Your task to perform on an android device: uninstall "Venmo" Image 0: 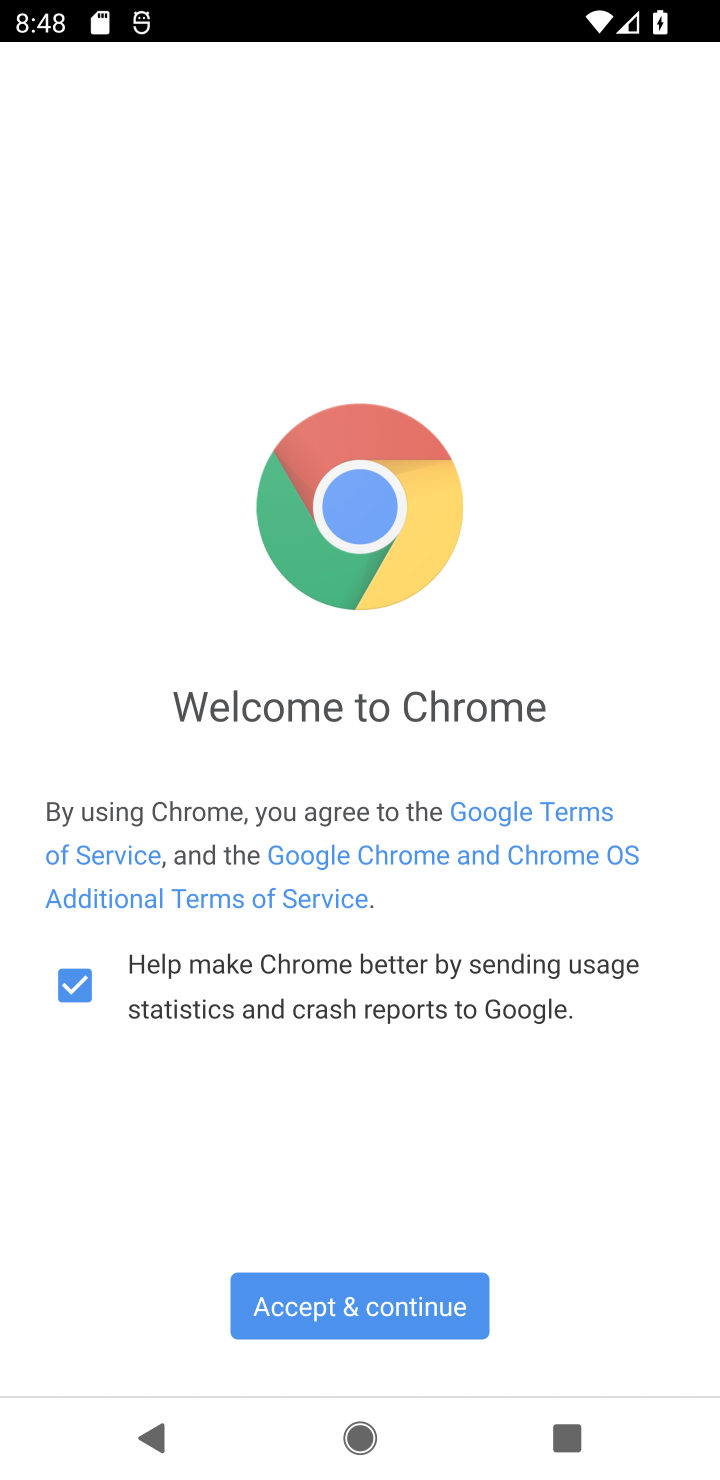
Step 0: press home button
Your task to perform on an android device: uninstall "Venmo" Image 1: 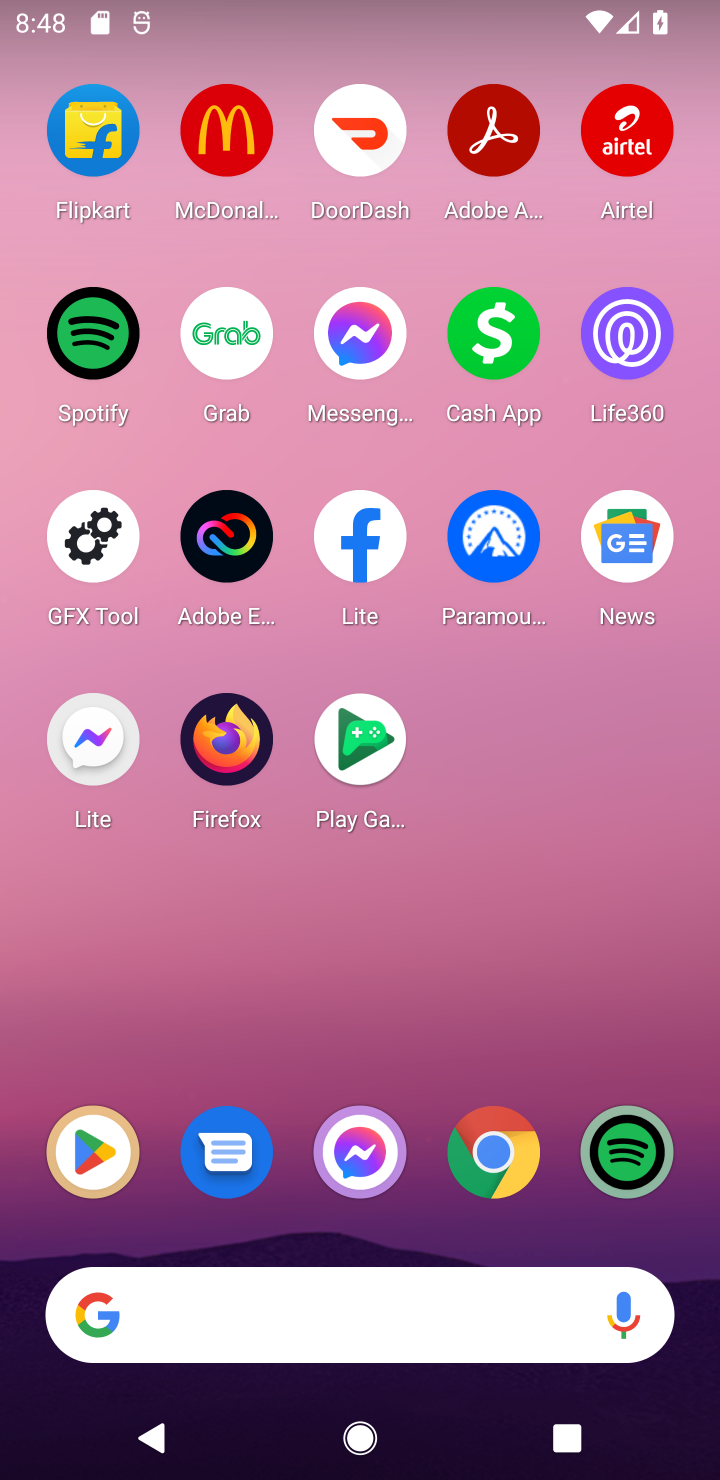
Step 1: click (67, 1158)
Your task to perform on an android device: uninstall "Venmo" Image 2: 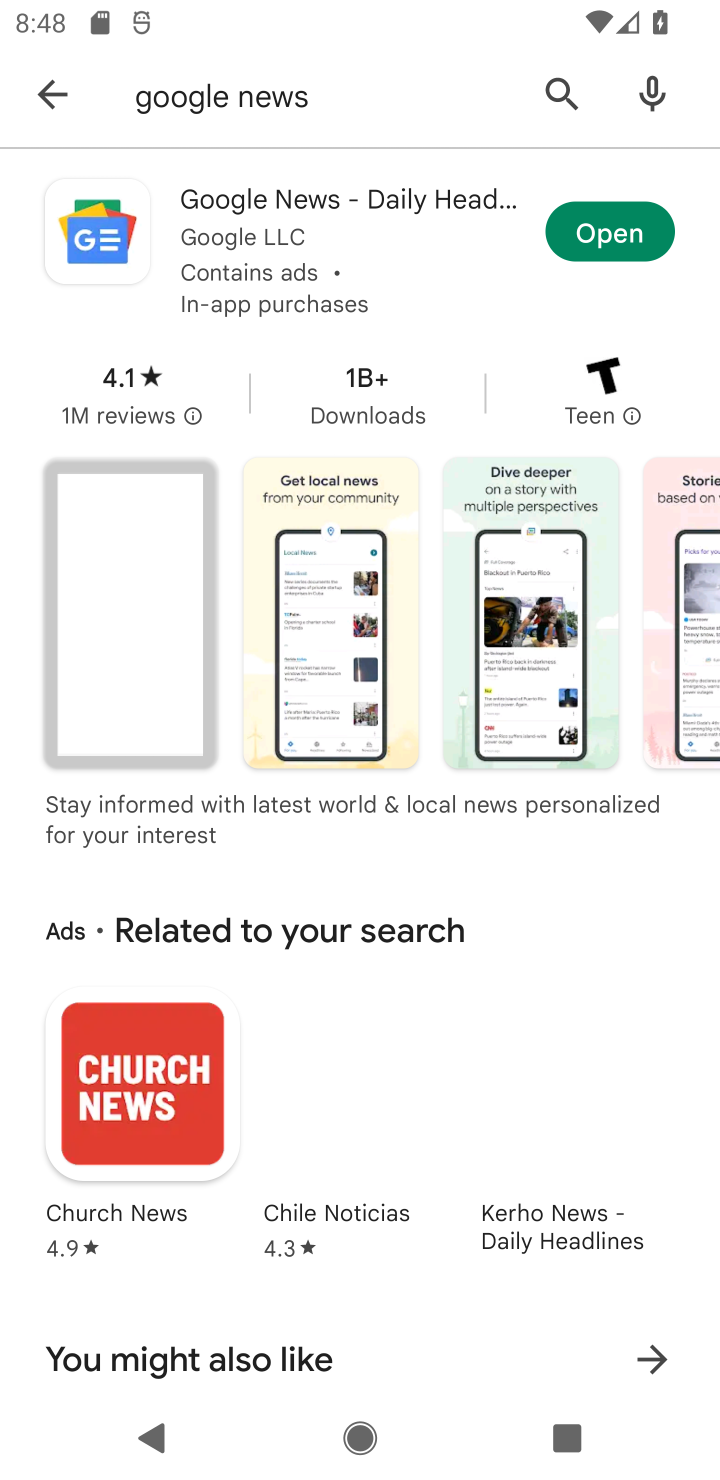
Step 2: click (49, 81)
Your task to perform on an android device: uninstall "Venmo" Image 3: 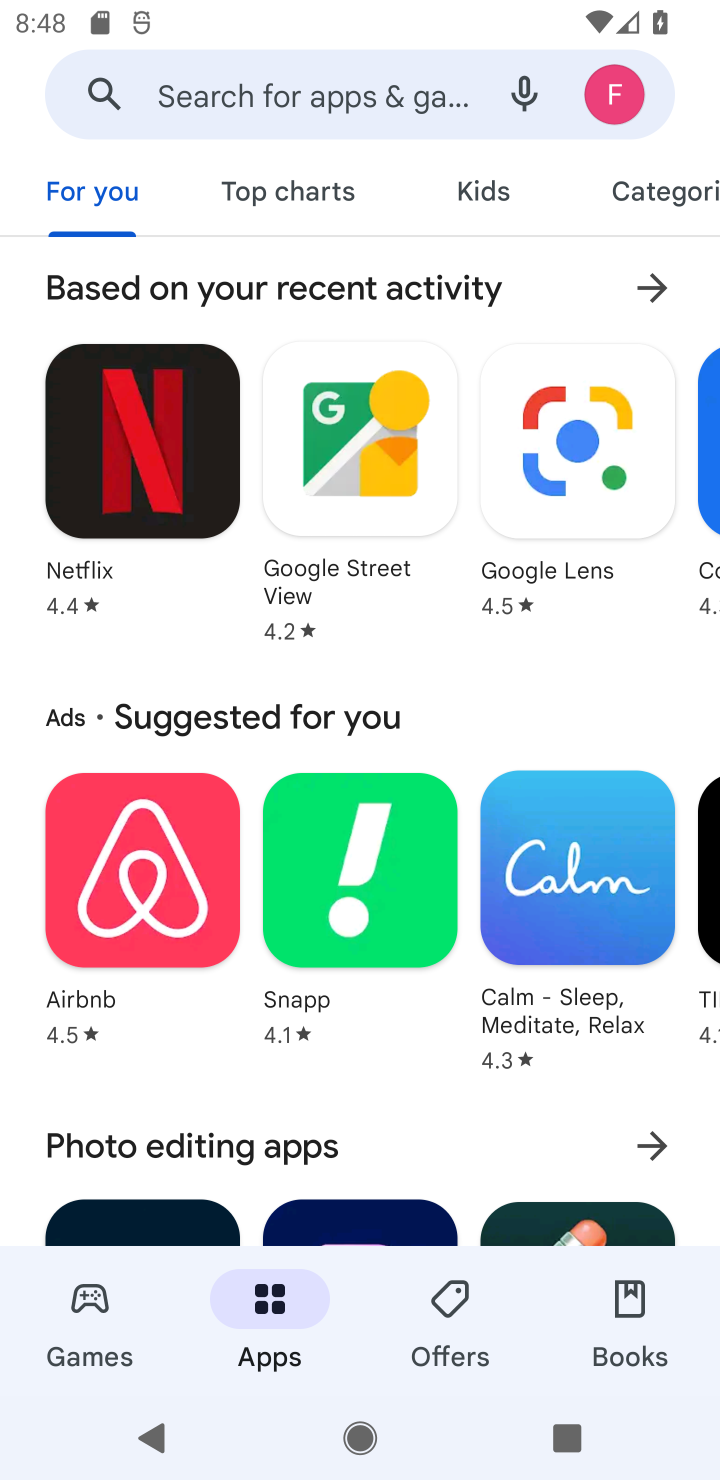
Step 3: click (337, 115)
Your task to perform on an android device: uninstall "Venmo" Image 4: 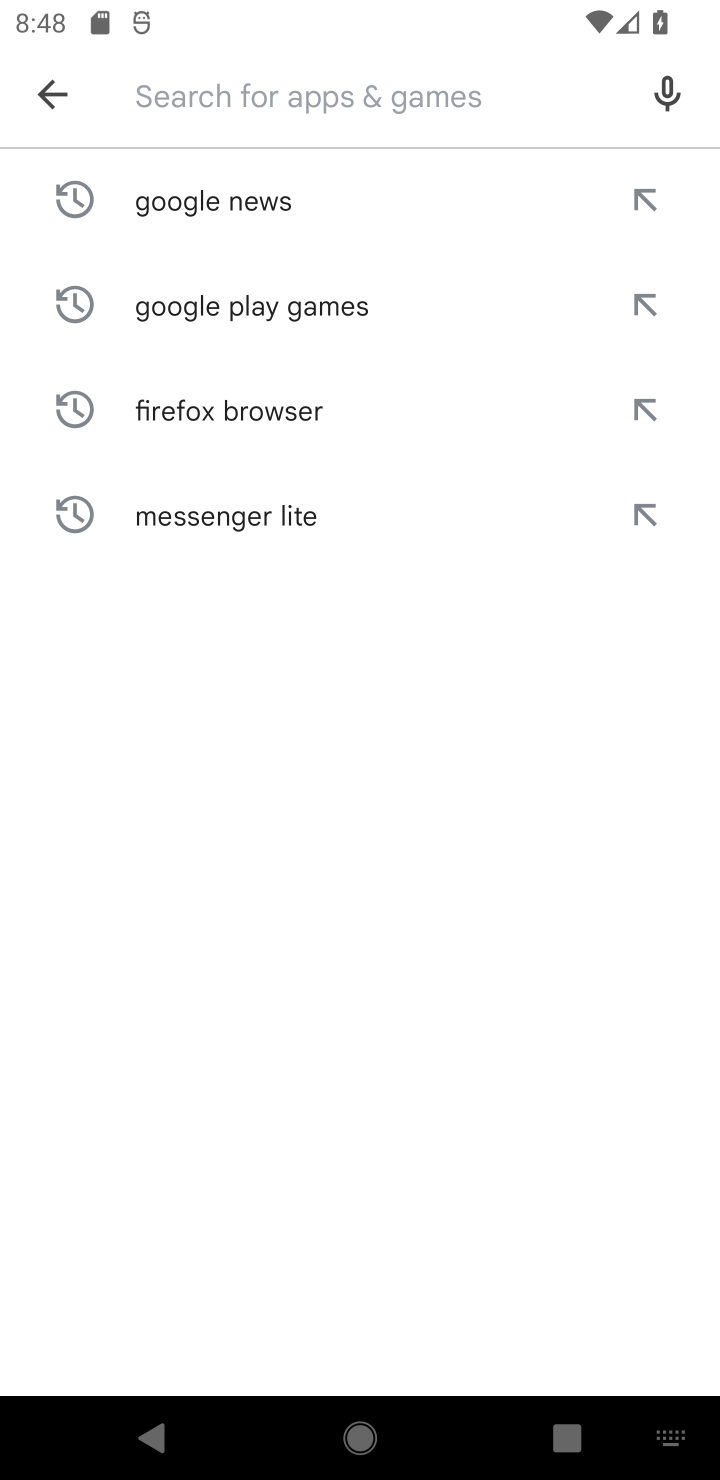
Step 4: type "Venmo"
Your task to perform on an android device: uninstall "Venmo" Image 5: 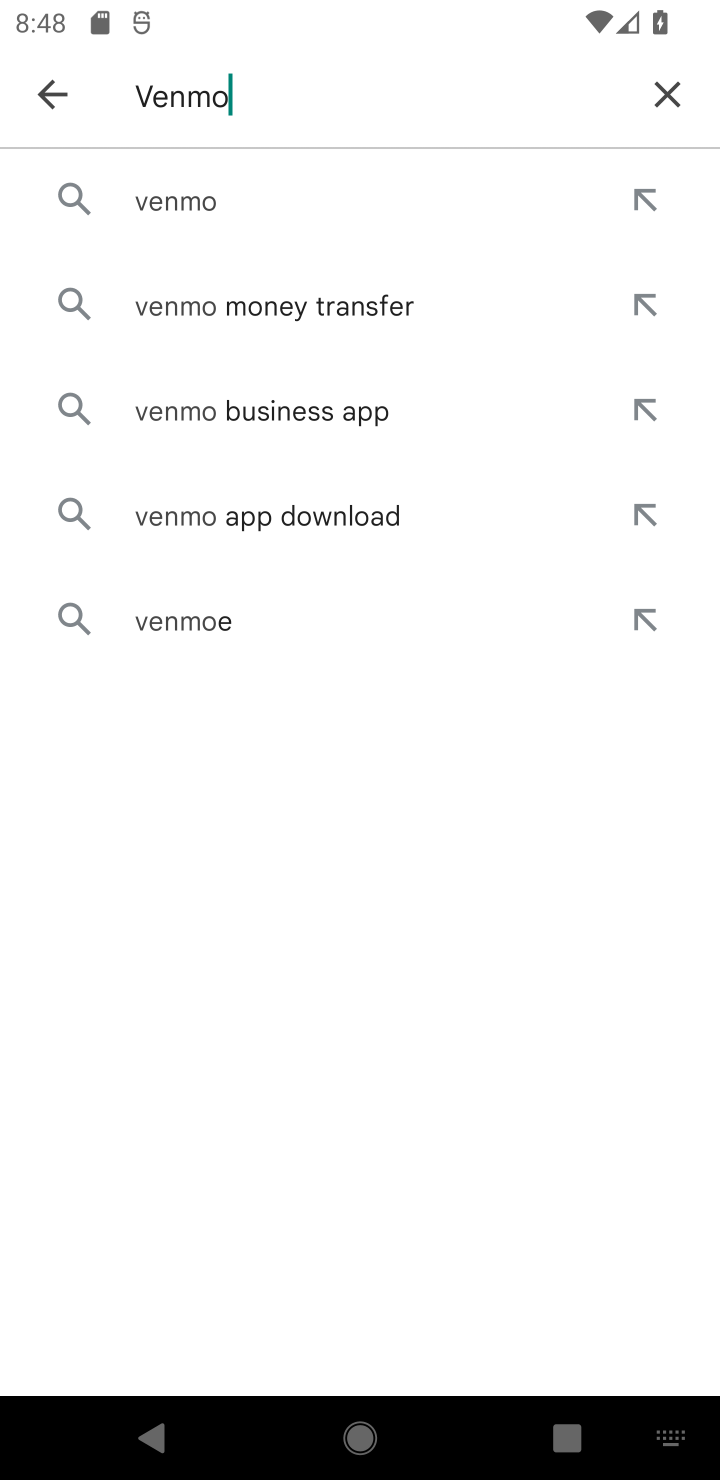
Step 5: click (244, 207)
Your task to perform on an android device: uninstall "Venmo" Image 6: 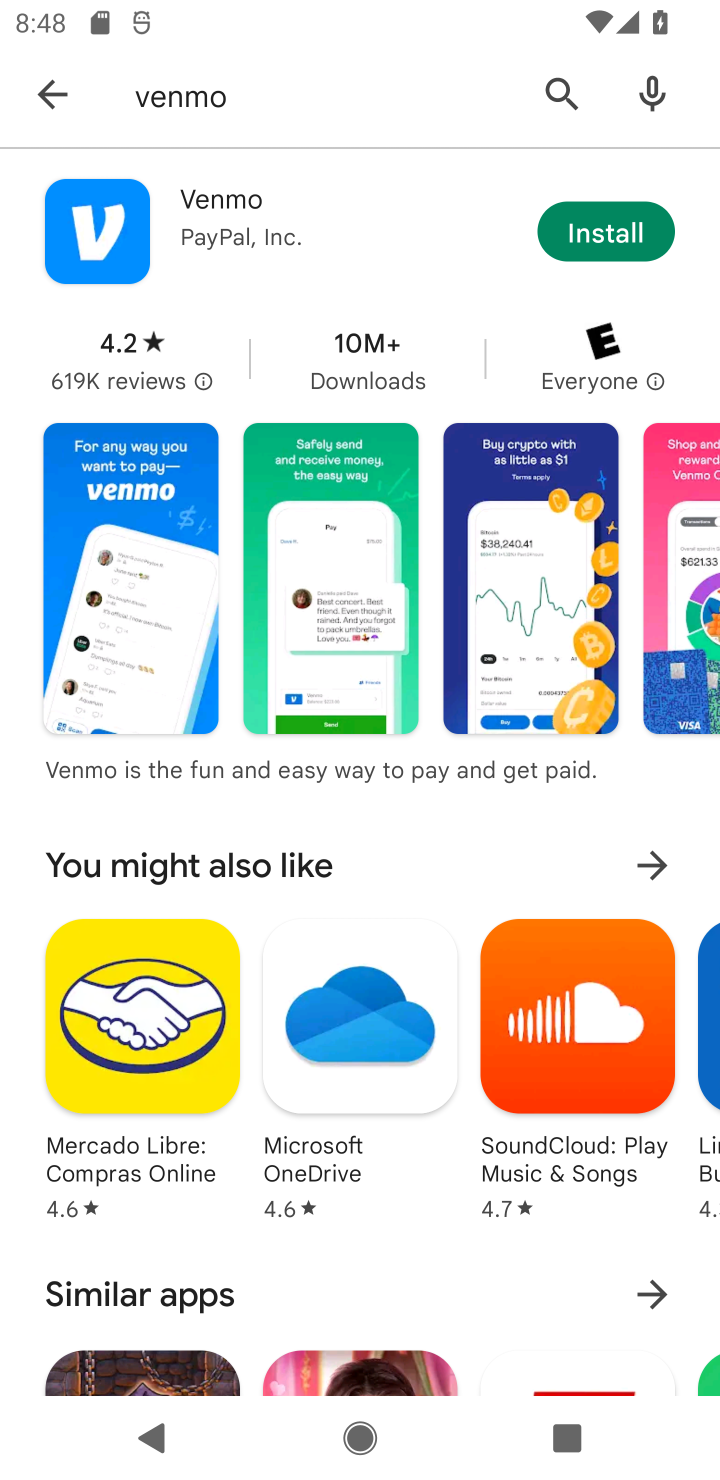
Step 6: click (600, 226)
Your task to perform on an android device: uninstall "Venmo" Image 7: 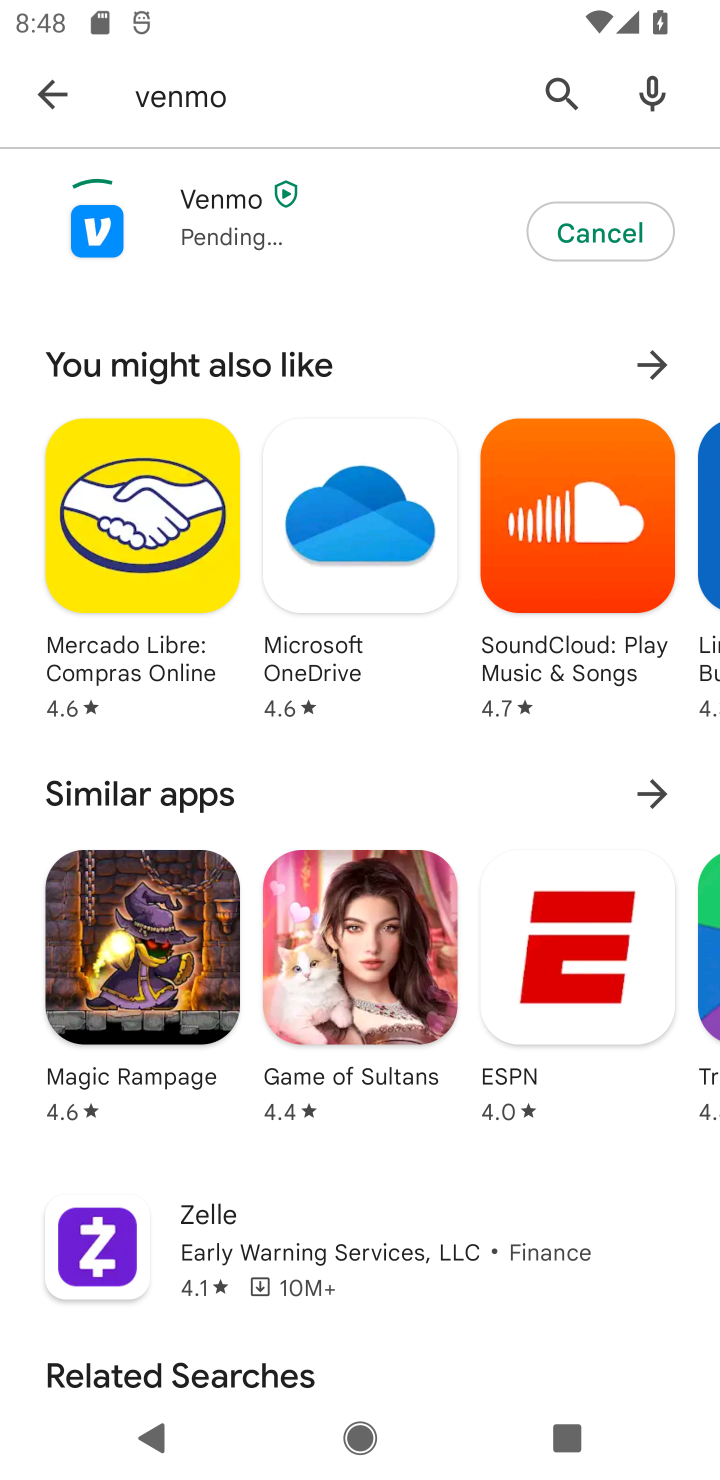
Step 7: click (575, 235)
Your task to perform on an android device: uninstall "Venmo" Image 8: 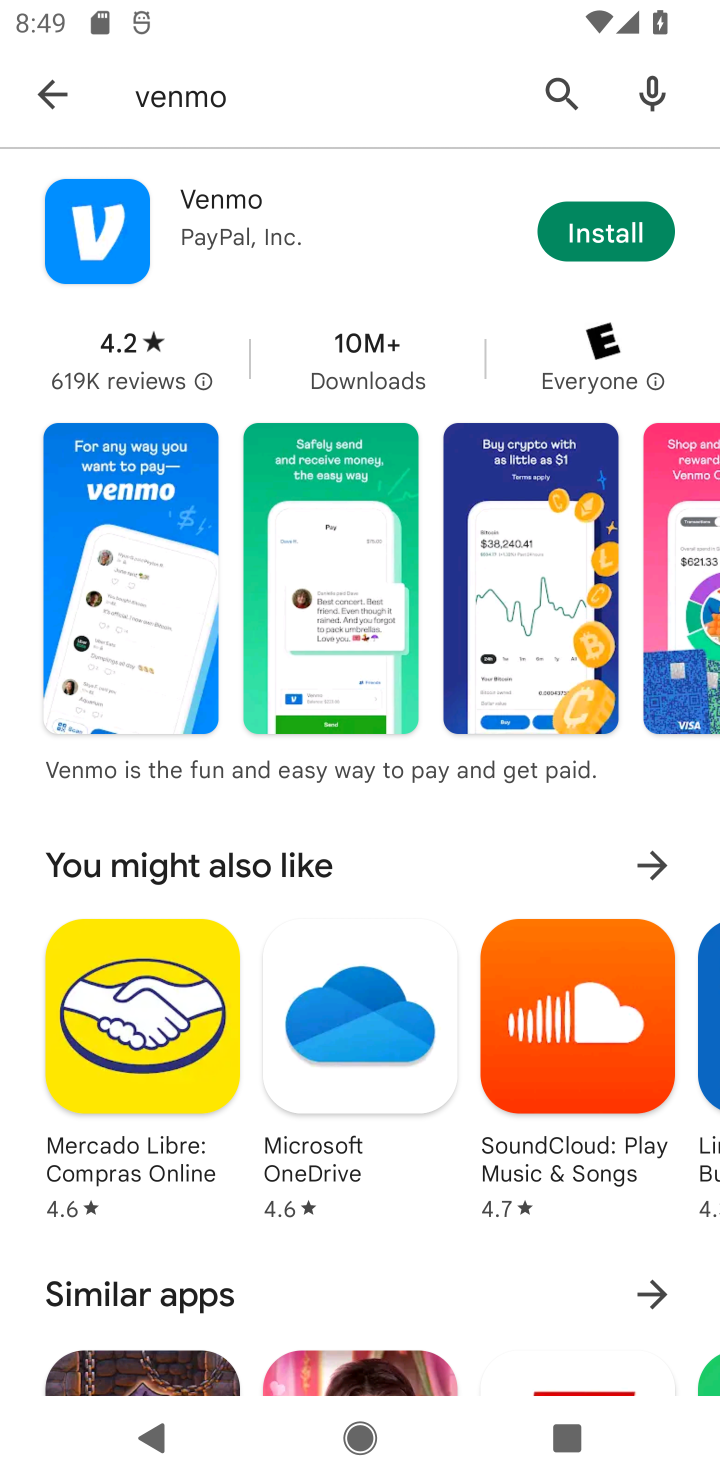
Step 8: task complete